Your task to perform on an android device: Go to CNN.com Image 0: 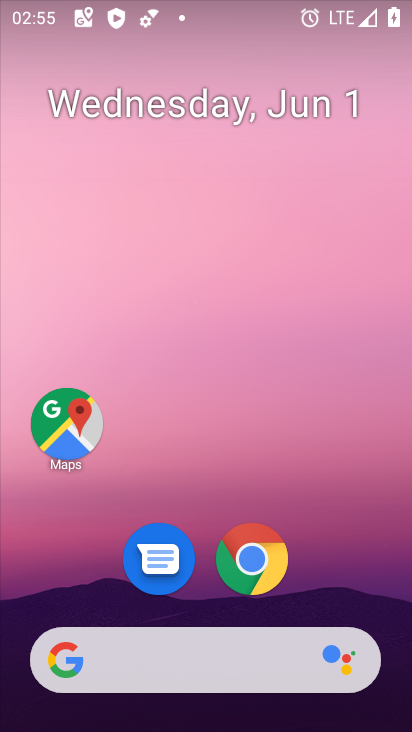
Step 0: press home button
Your task to perform on an android device: Go to CNN.com Image 1: 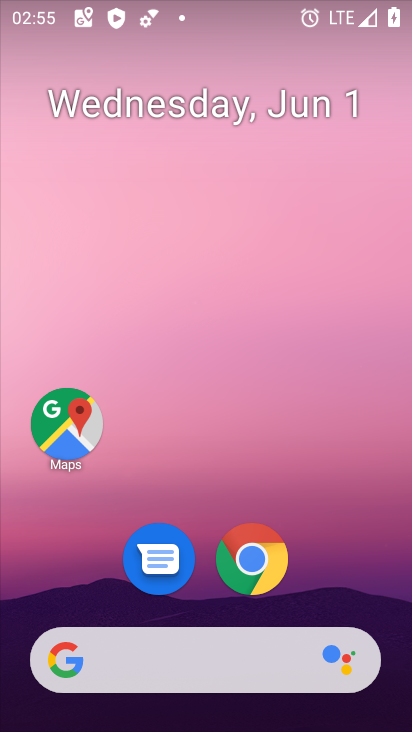
Step 1: click (70, 657)
Your task to perform on an android device: Go to CNN.com Image 2: 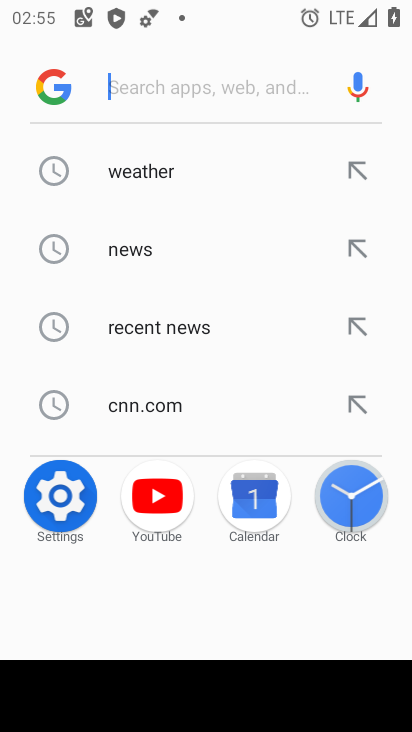
Step 2: click (160, 407)
Your task to perform on an android device: Go to CNN.com Image 3: 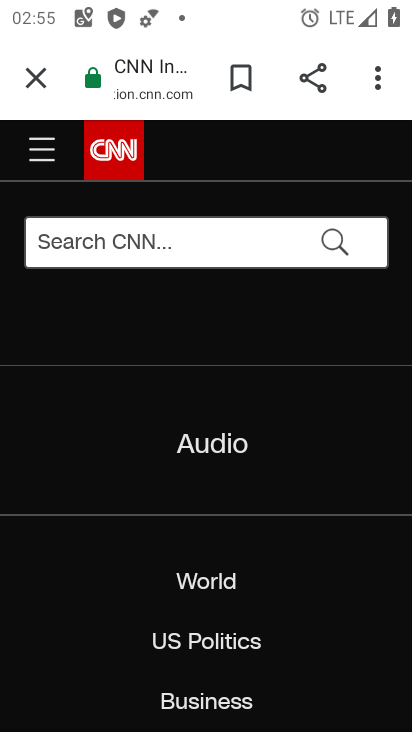
Step 3: task complete